Your task to perform on an android device: Open calendar and show me the third week of next month Image 0: 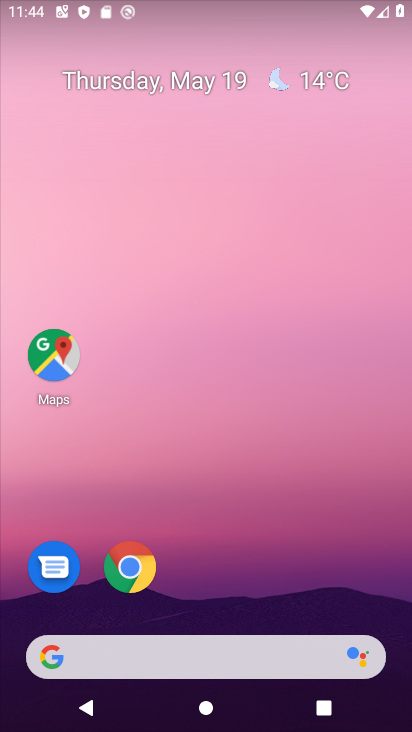
Step 0: drag from (263, 556) to (60, 198)
Your task to perform on an android device: Open calendar and show me the third week of next month Image 1: 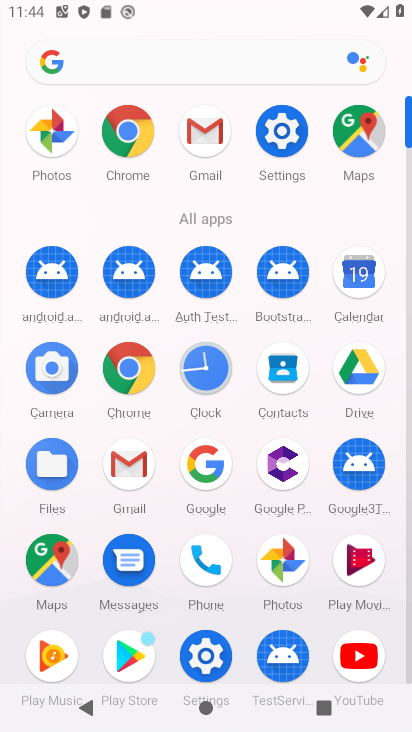
Step 1: click (339, 281)
Your task to perform on an android device: Open calendar and show me the third week of next month Image 2: 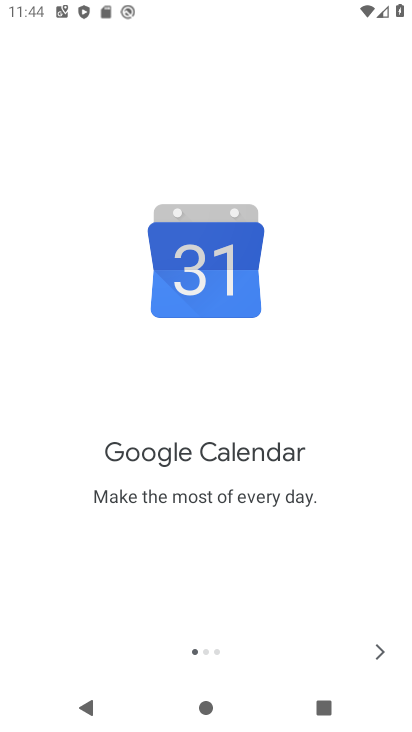
Step 2: click (385, 647)
Your task to perform on an android device: Open calendar and show me the third week of next month Image 3: 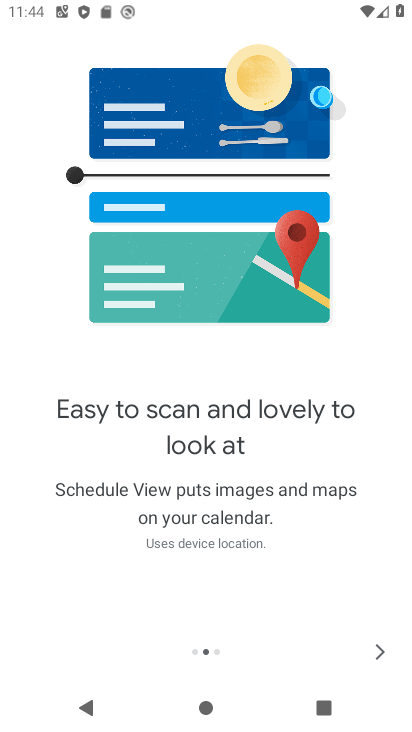
Step 3: click (385, 647)
Your task to perform on an android device: Open calendar and show me the third week of next month Image 4: 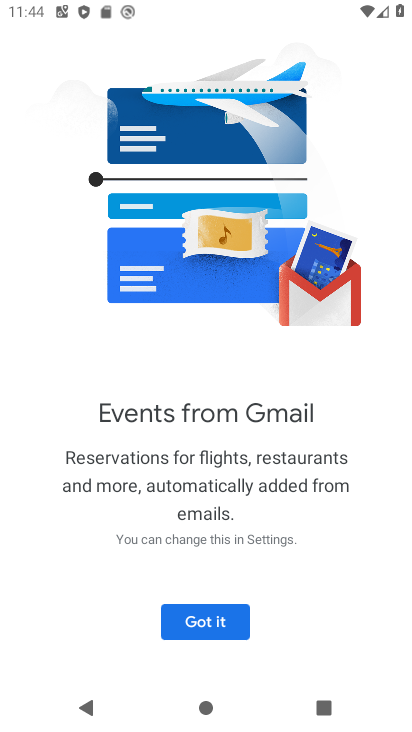
Step 4: click (226, 614)
Your task to perform on an android device: Open calendar and show me the third week of next month Image 5: 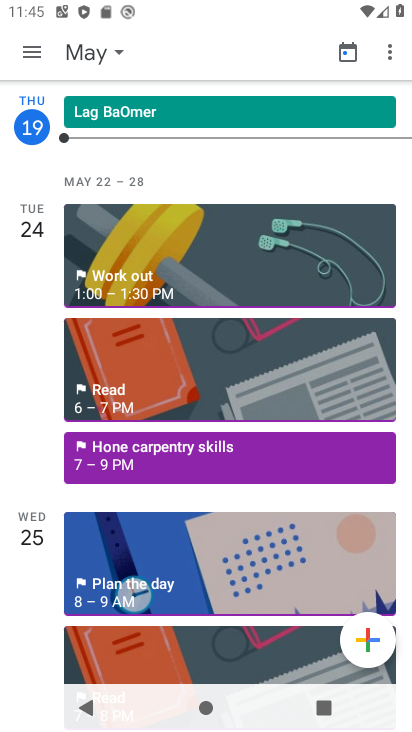
Step 5: click (106, 52)
Your task to perform on an android device: Open calendar and show me the third week of next month Image 6: 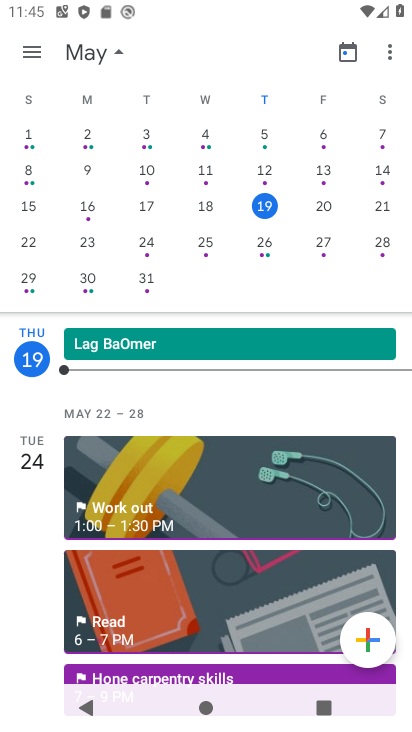
Step 6: drag from (351, 244) to (13, 243)
Your task to perform on an android device: Open calendar and show me the third week of next month Image 7: 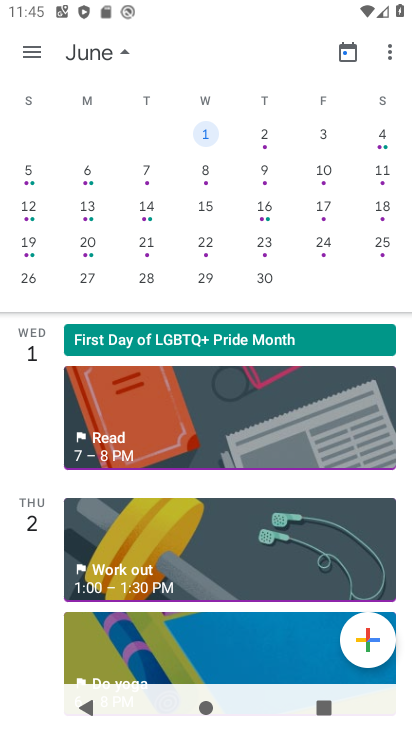
Step 7: click (143, 243)
Your task to perform on an android device: Open calendar and show me the third week of next month Image 8: 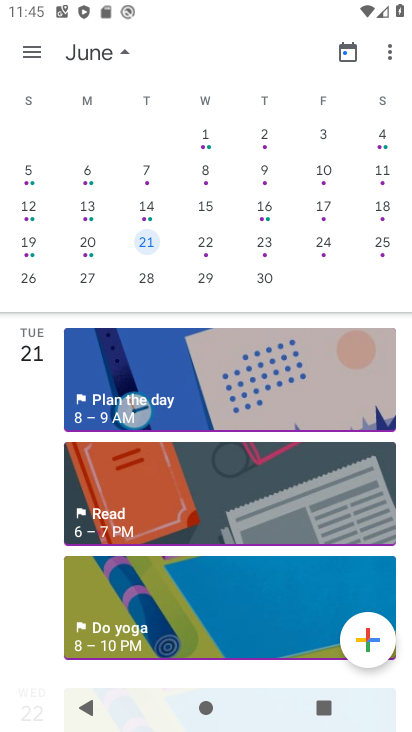
Step 8: task complete